Your task to perform on an android device: check out phone information Image 0: 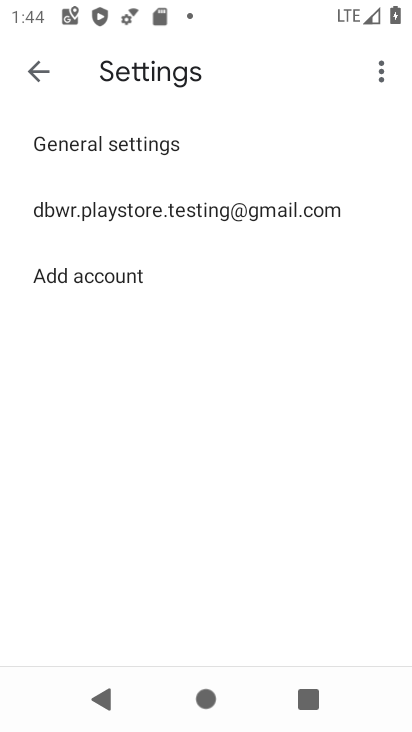
Step 0: press home button
Your task to perform on an android device: check out phone information Image 1: 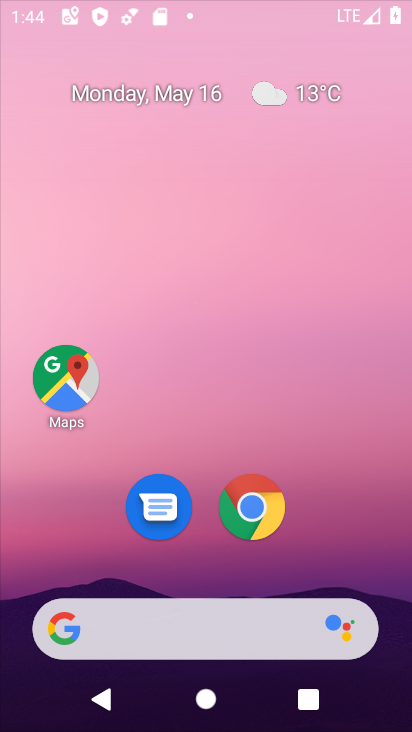
Step 1: drag from (273, 582) to (259, 13)
Your task to perform on an android device: check out phone information Image 2: 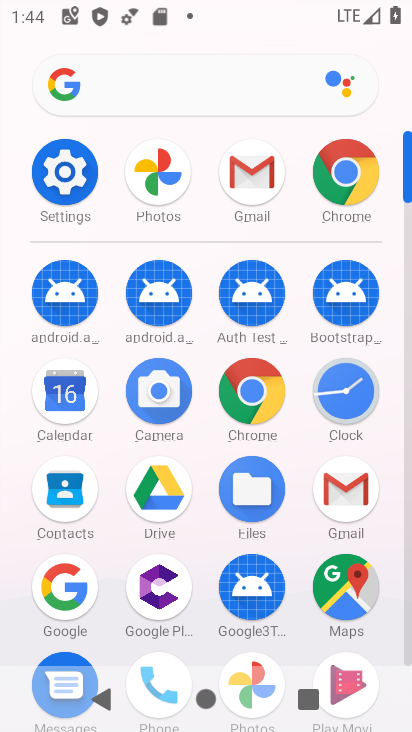
Step 2: click (60, 169)
Your task to perform on an android device: check out phone information Image 3: 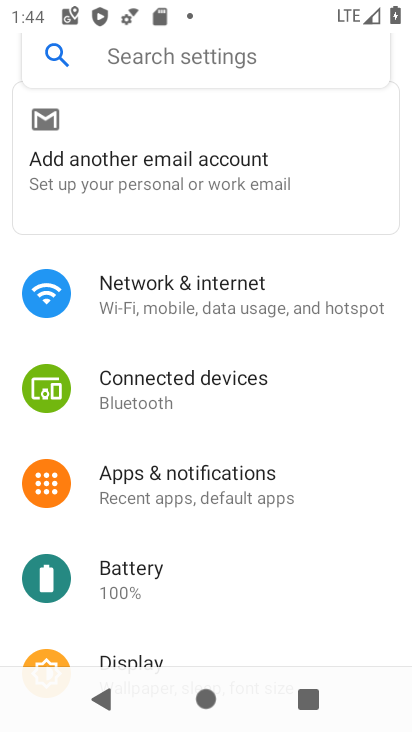
Step 3: drag from (248, 602) to (211, 122)
Your task to perform on an android device: check out phone information Image 4: 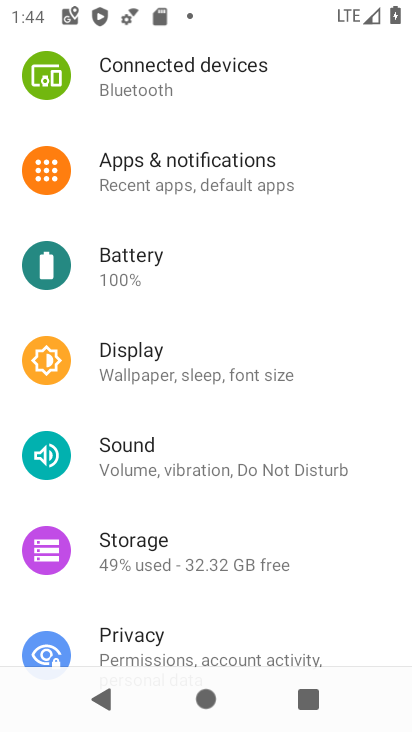
Step 4: drag from (228, 553) to (222, 67)
Your task to perform on an android device: check out phone information Image 5: 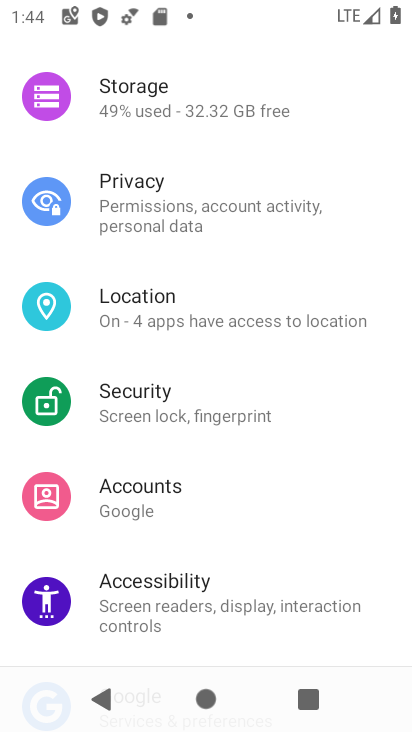
Step 5: drag from (275, 530) to (233, 111)
Your task to perform on an android device: check out phone information Image 6: 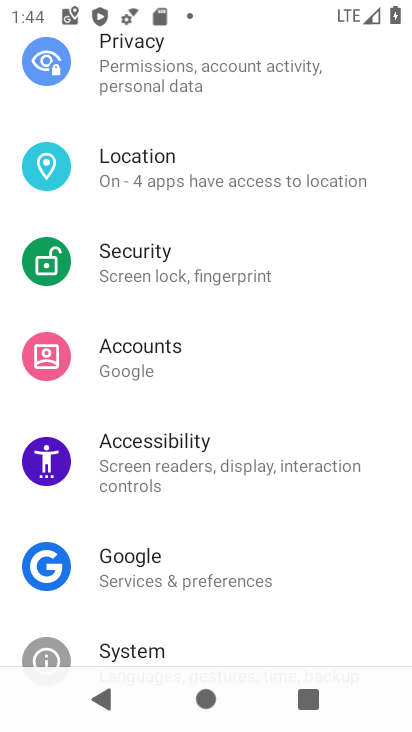
Step 6: drag from (242, 533) to (252, 132)
Your task to perform on an android device: check out phone information Image 7: 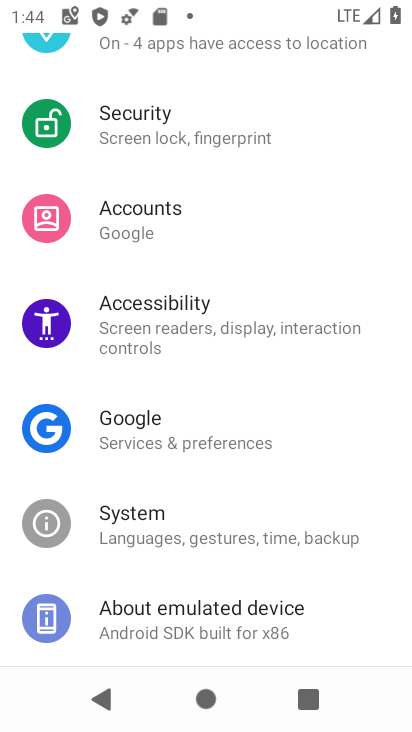
Step 7: click (238, 599)
Your task to perform on an android device: check out phone information Image 8: 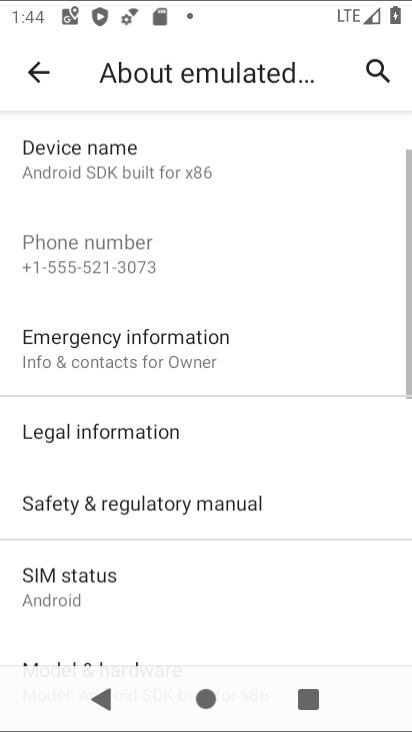
Step 8: drag from (269, 532) to (230, 97)
Your task to perform on an android device: check out phone information Image 9: 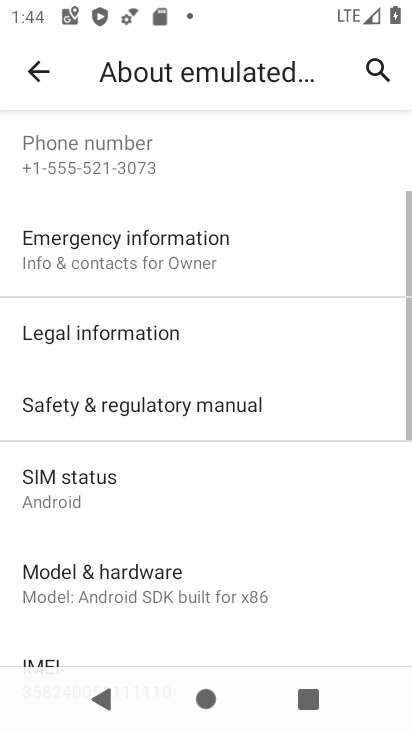
Step 9: drag from (228, 543) to (220, 172)
Your task to perform on an android device: check out phone information Image 10: 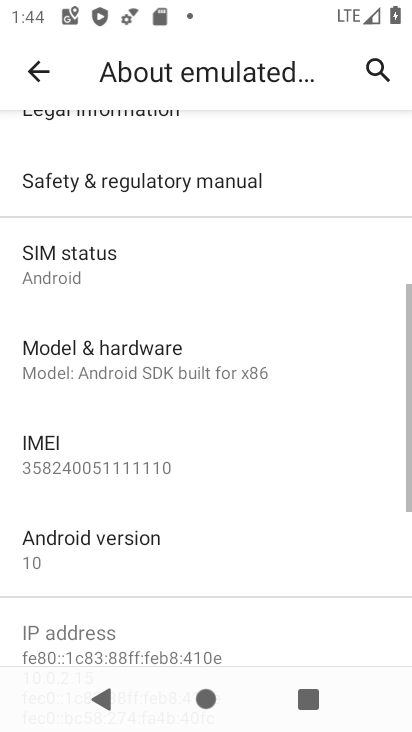
Step 10: click (243, 497)
Your task to perform on an android device: check out phone information Image 11: 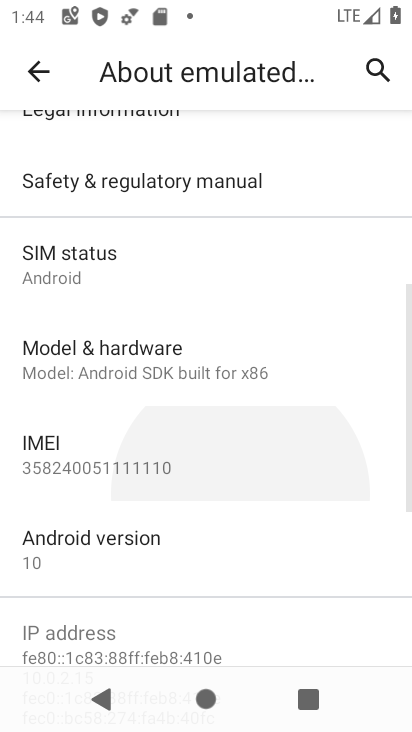
Step 11: click (235, 532)
Your task to perform on an android device: check out phone information Image 12: 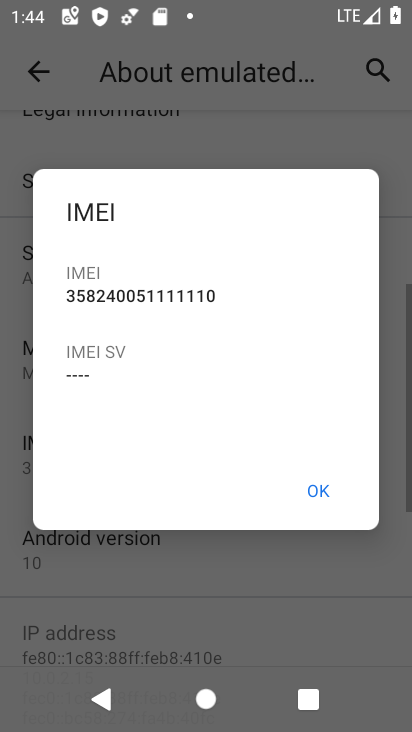
Step 12: click (327, 495)
Your task to perform on an android device: check out phone information Image 13: 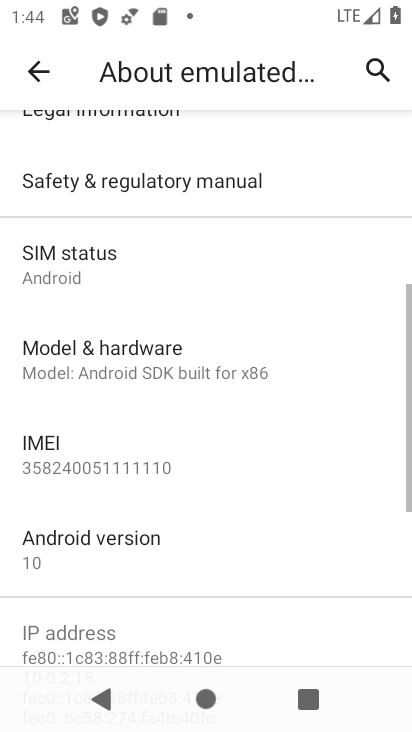
Step 13: task complete